Your task to perform on an android device: Show me the best rated vacuum on Walmart. Image 0: 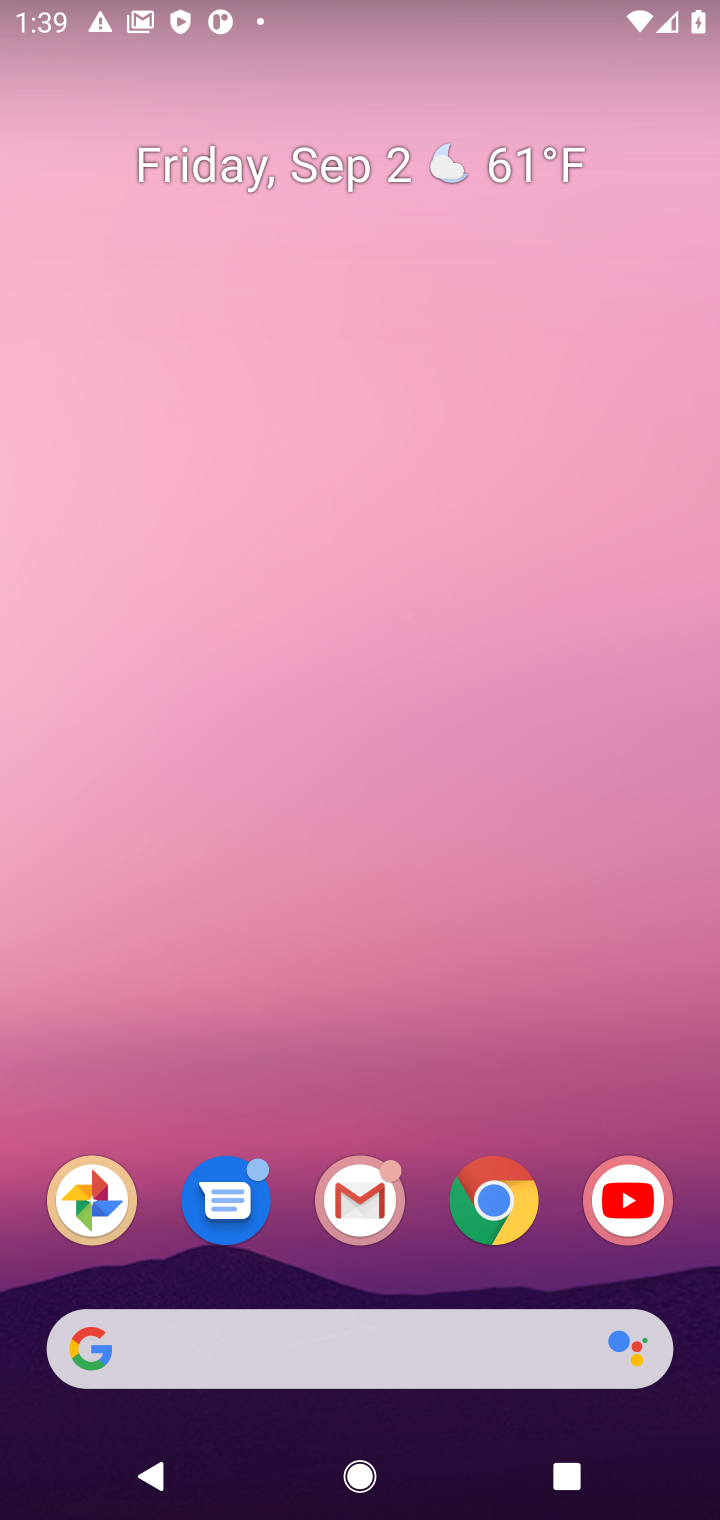
Step 0: click (496, 1203)
Your task to perform on an android device: Show me the best rated vacuum on Walmart. Image 1: 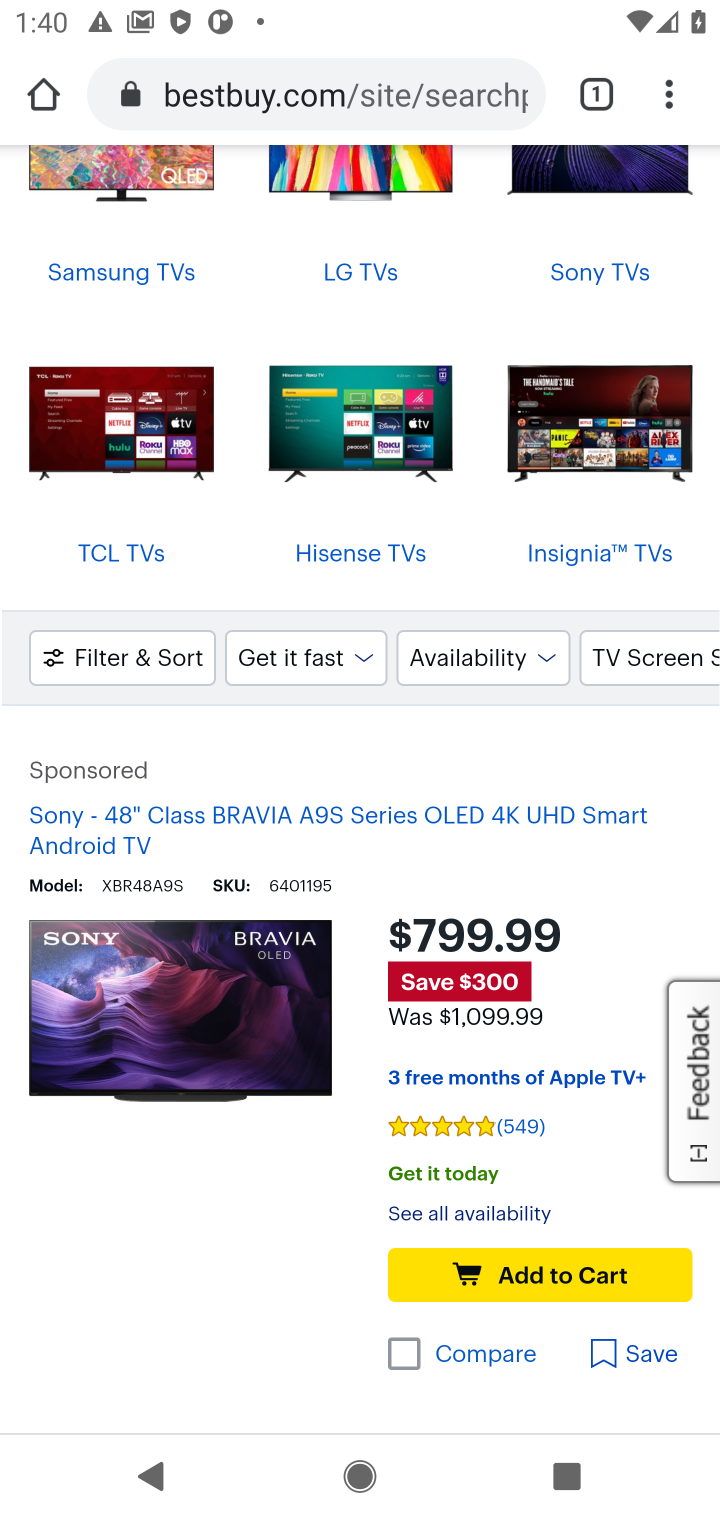
Step 1: click (437, 95)
Your task to perform on an android device: Show me the best rated vacuum on Walmart. Image 2: 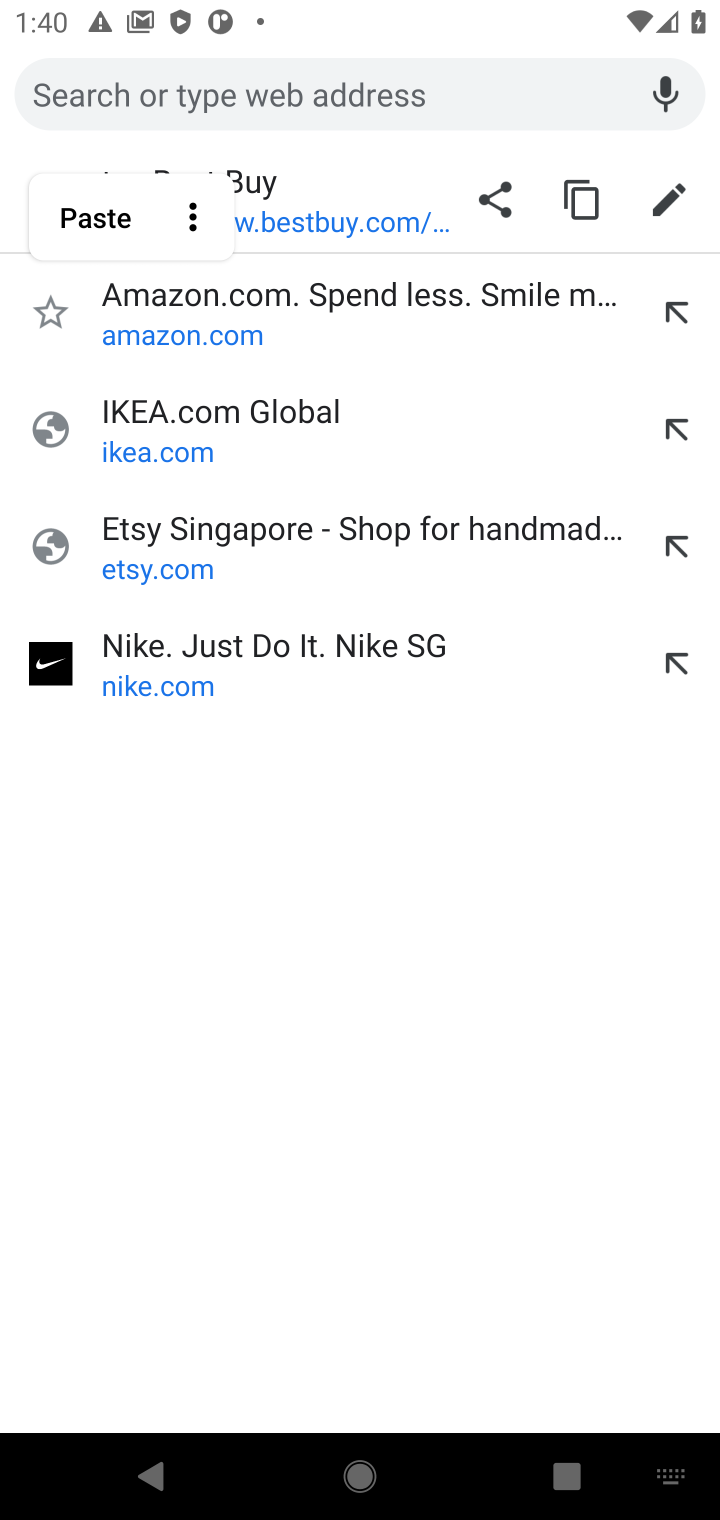
Step 2: type "Walmart"
Your task to perform on an android device: Show me the best rated vacuum on Walmart. Image 3: 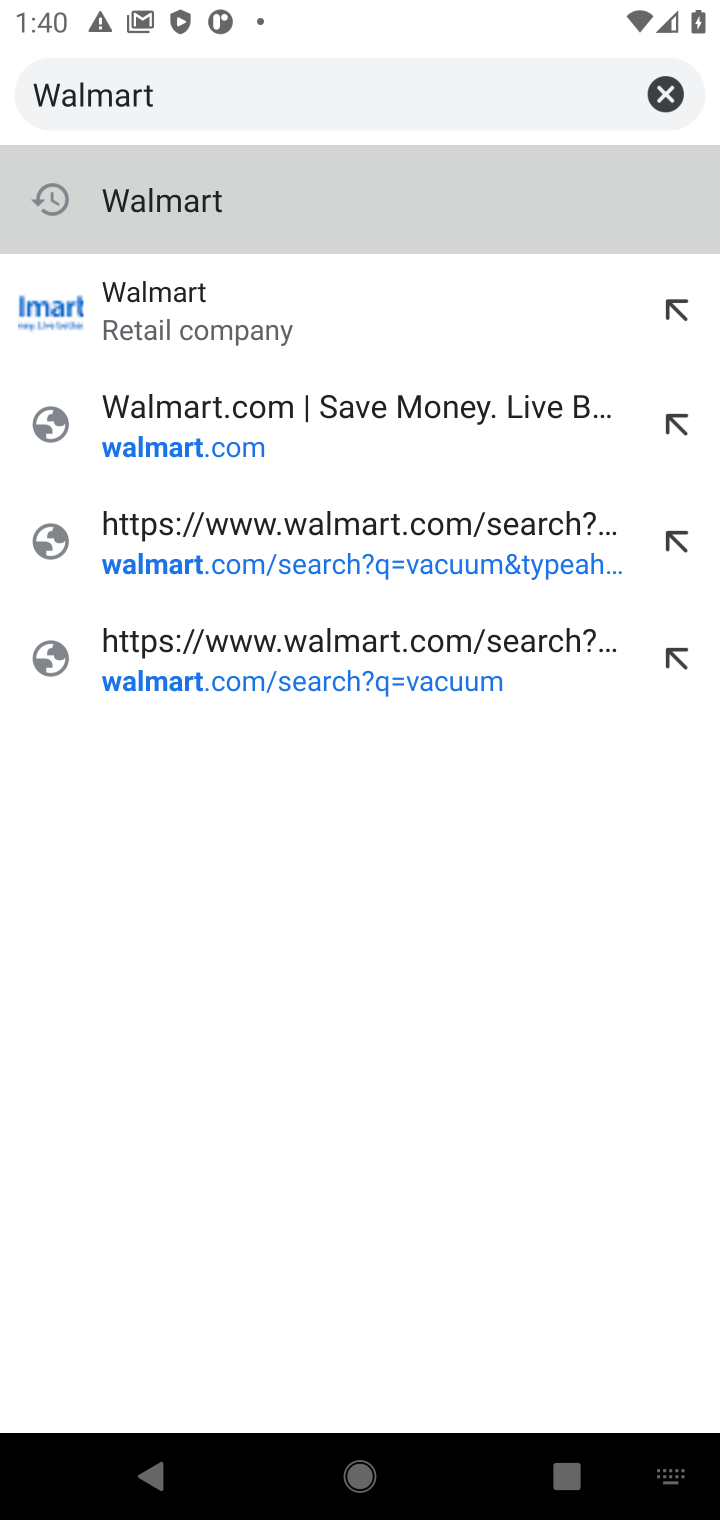
Step 3: press enter
Your task to perform on an android device: Show me the best rated vacuum on Walmart. Image 4: 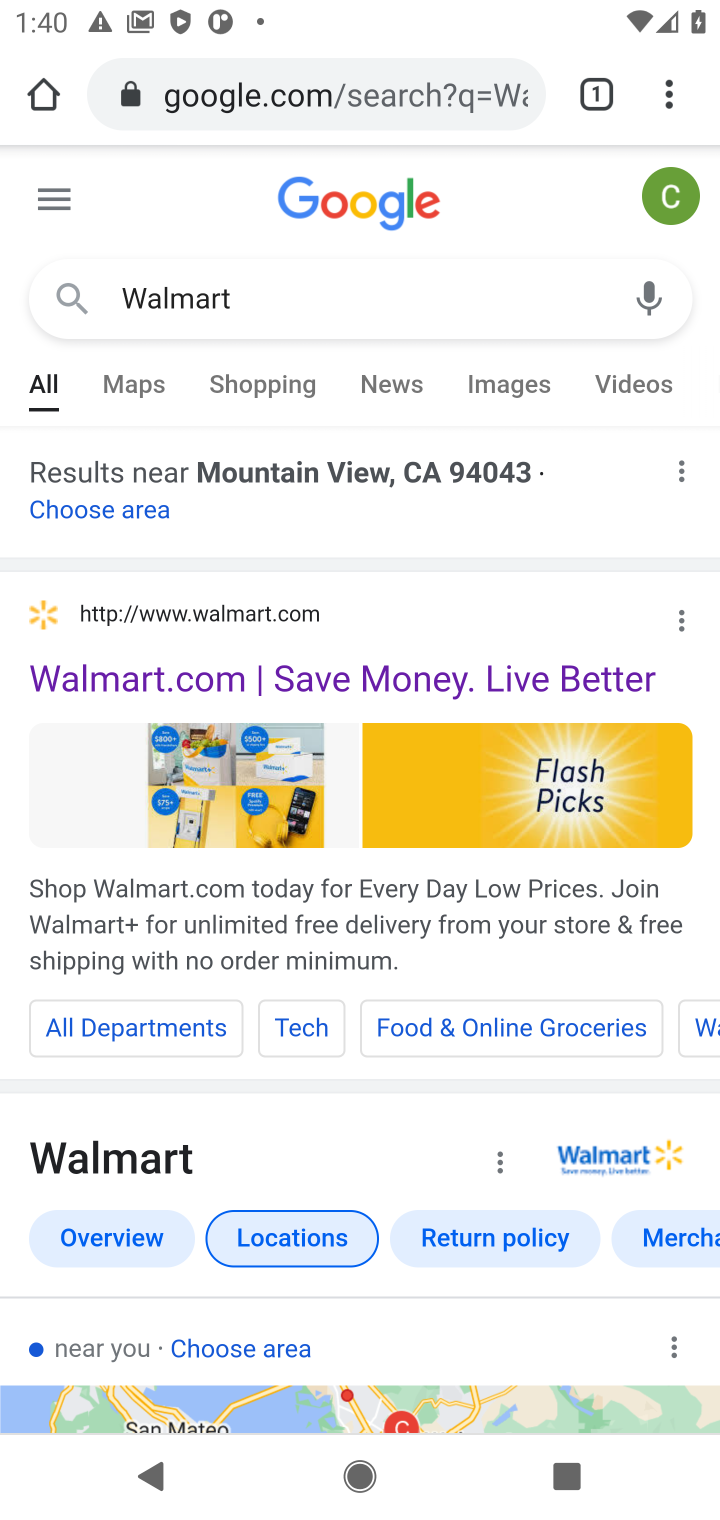
Step 4: drag from (230, 1403) to (519, 491)
Your task to perform on an android device: Show me the best rated vacuum on Walmart. Image 5: 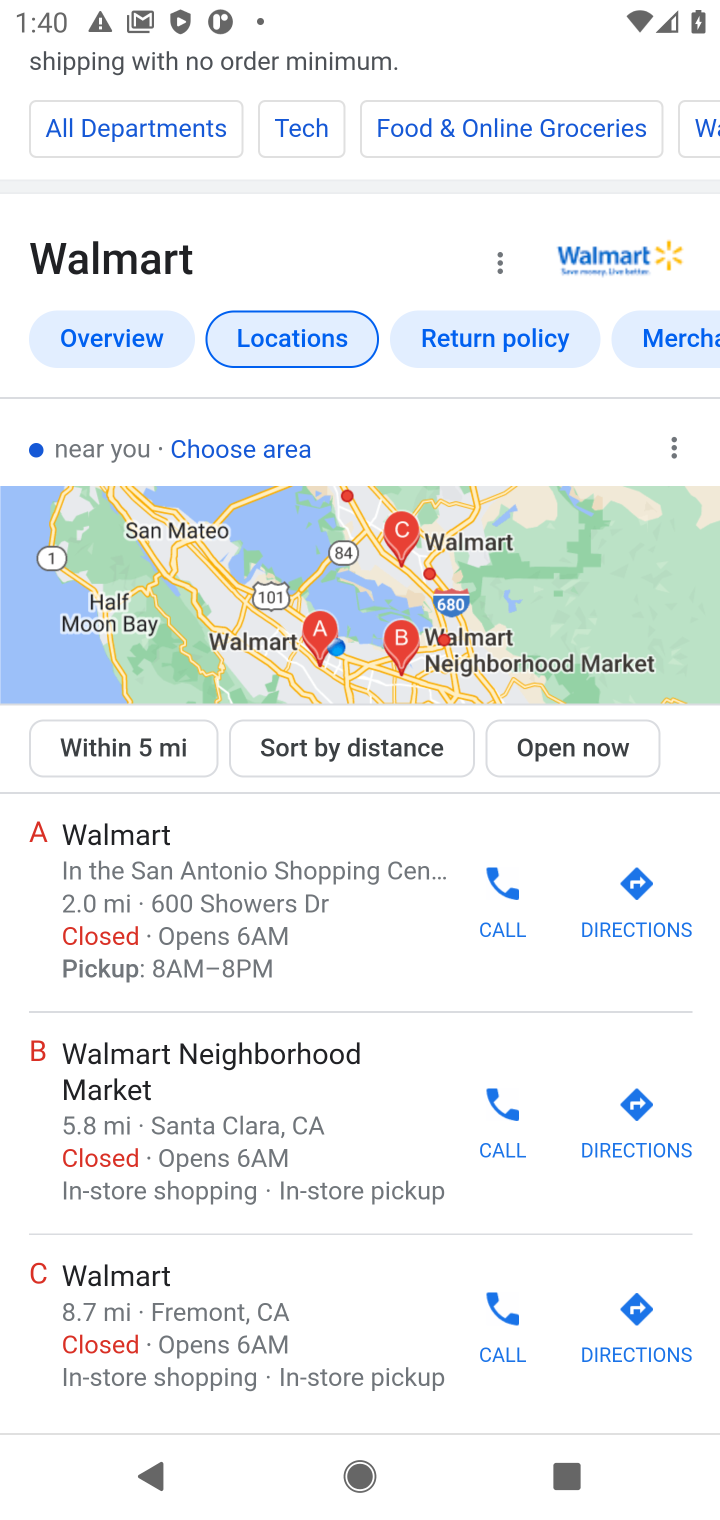
Step 5: drag from (187, 1215) to (607, 166)
Your task to perform on an android device: Show me the best rated vacuum on Walmart. Image 6: 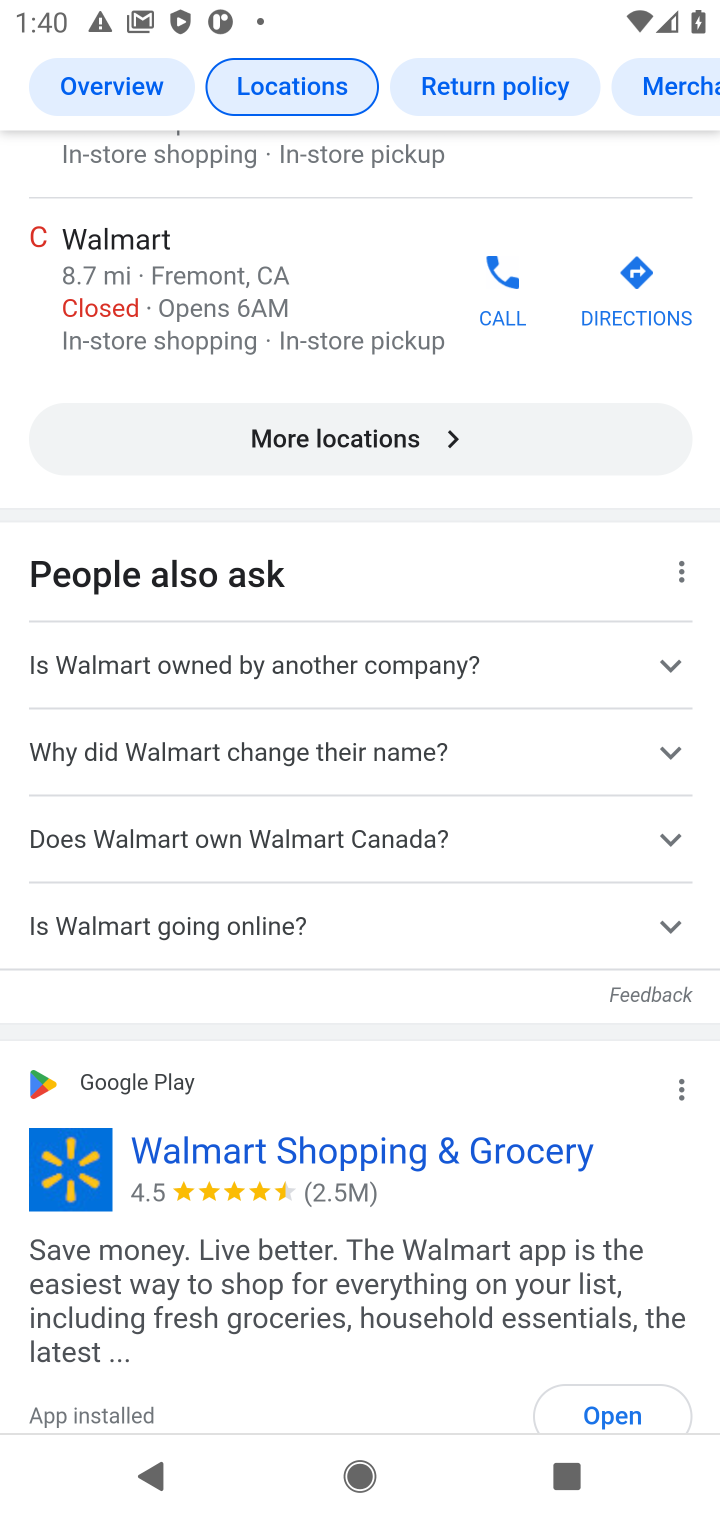
Step 6: drag from (299, 1238) to (589, 253)
Your task to perform on an android device: Show me the best rated vacuum on Walmart. Image 7: 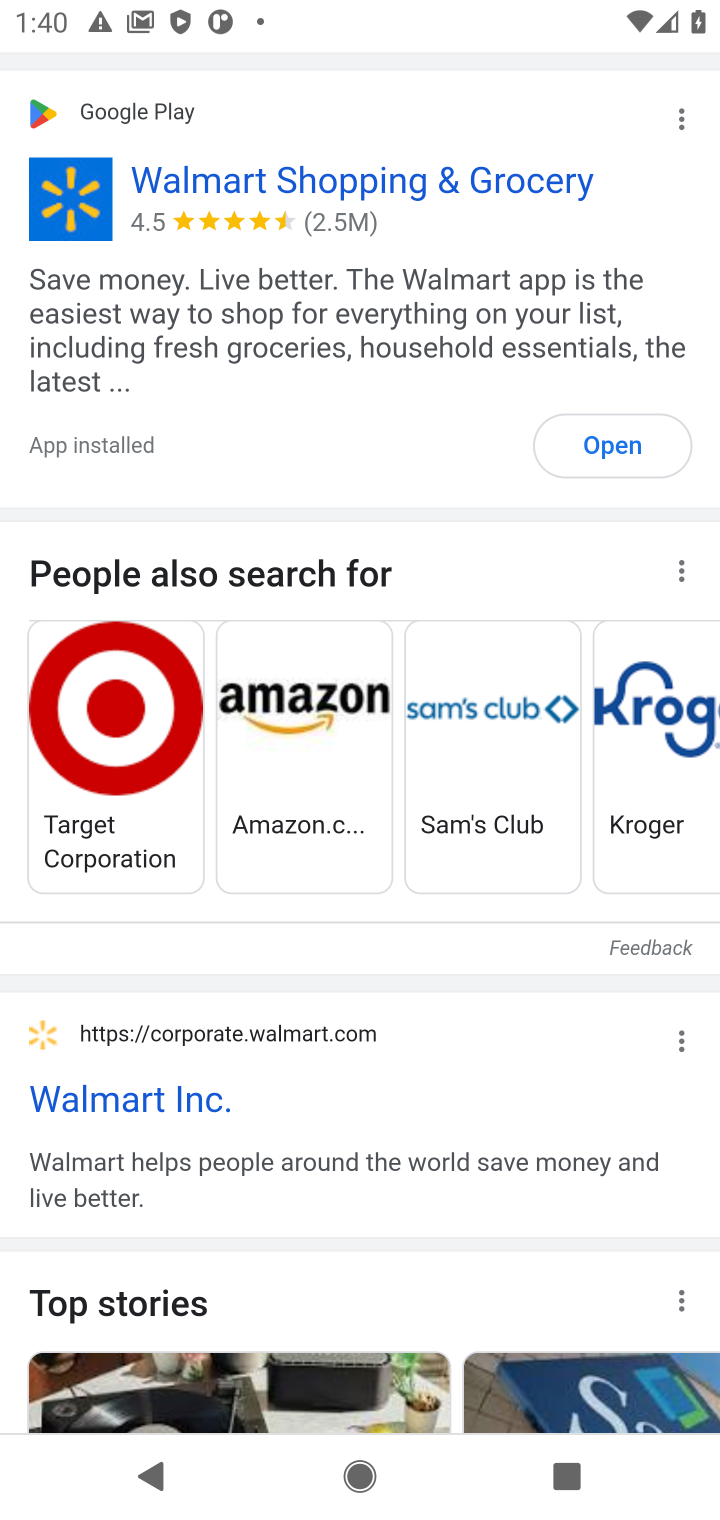
Step 7: drag from (489, 527) to (529, 221)
Your task to perform on an android device: Show me the best rated vacuum on Walmart. Image 8: 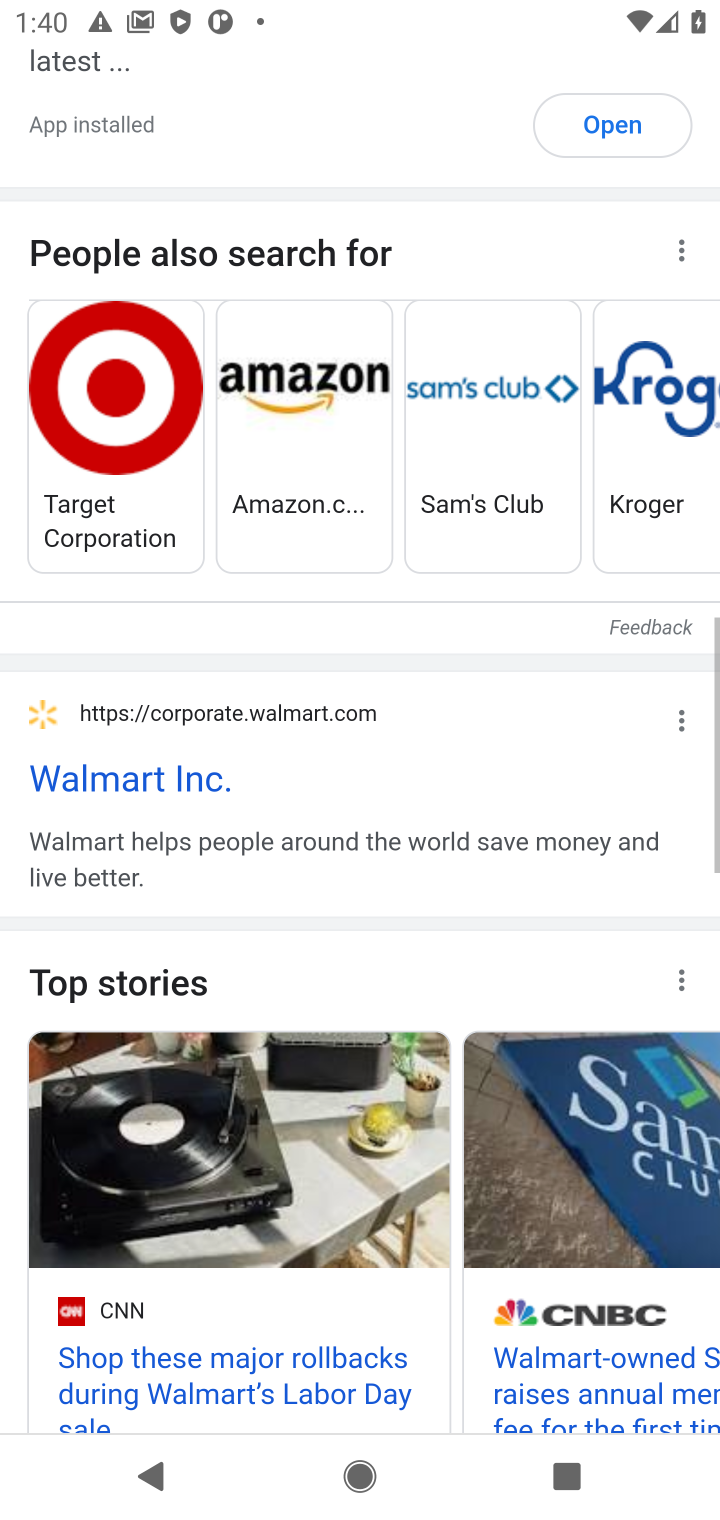
Step 8: drag from (324, 1062) to (500, 374)
Your task to perform on an android device: Show me the best rated vacuum on Walmart. Image 9: 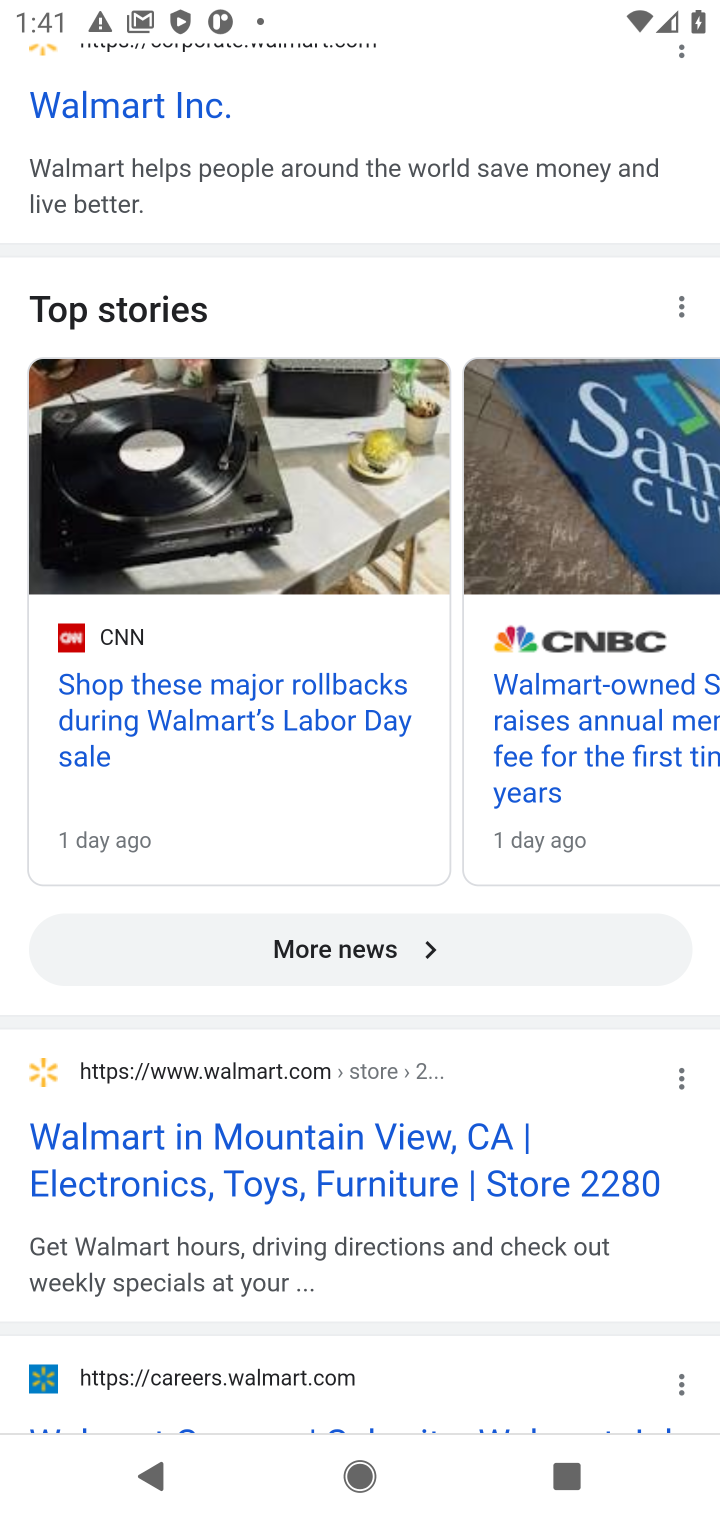
Step 9: click (266, 1146)
Your task to perform on an android device: Show me the best rated vacuum on Walmart. Image 10: 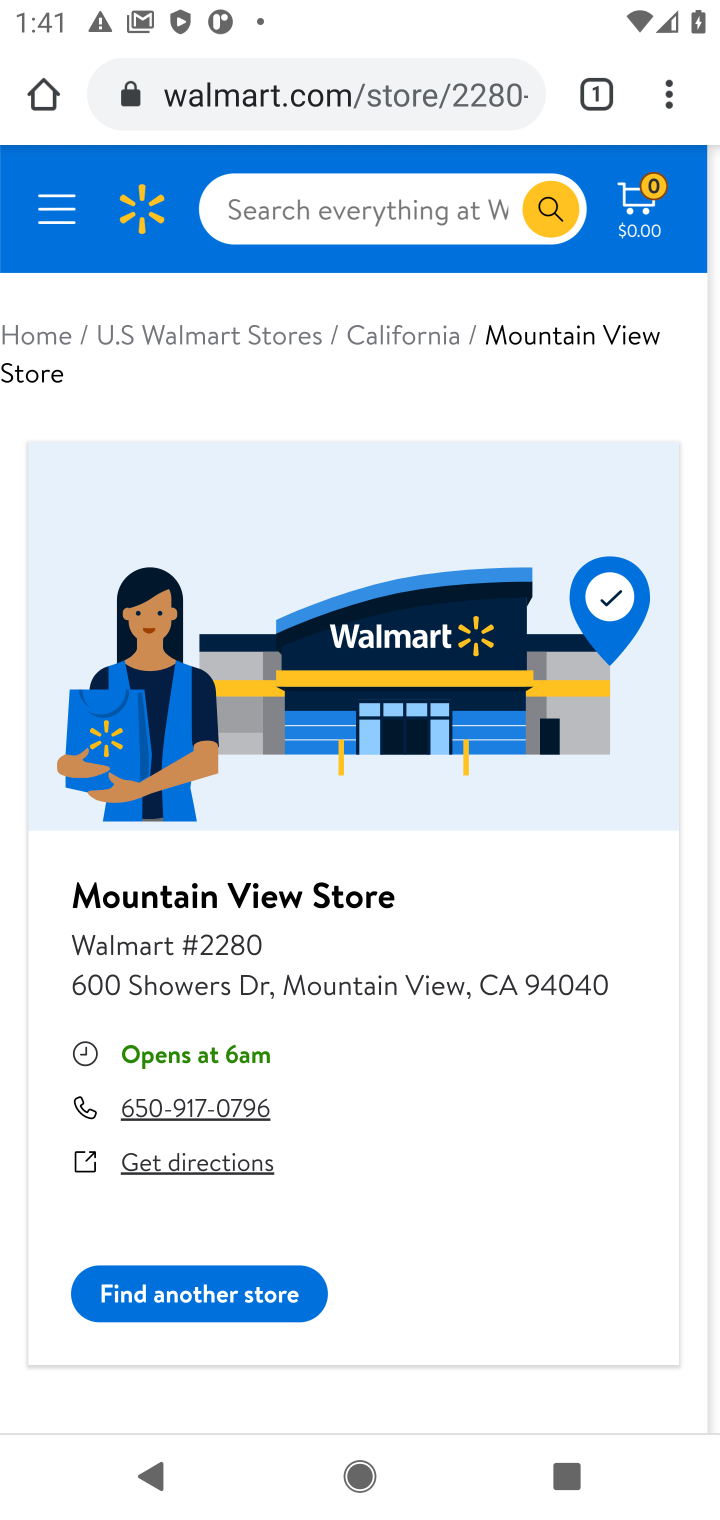
Step 10: click (382, 210)
Your task to perform on an android device: Show me the best rated vacuum on Walmart. Image 11: 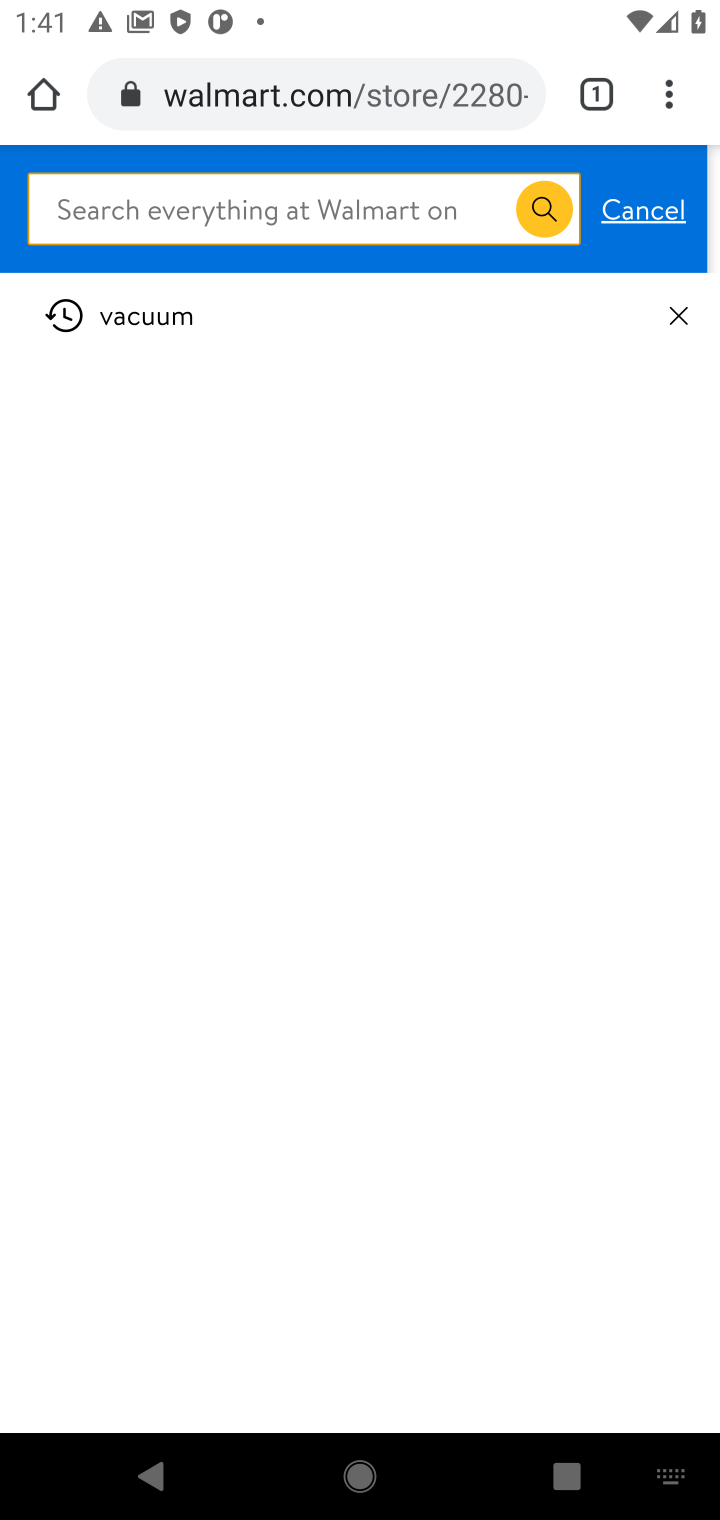
Step 11: type " vacuum"
Your task to perform on an android device: Show me the best rated vacuum on Walmart. Image 12: 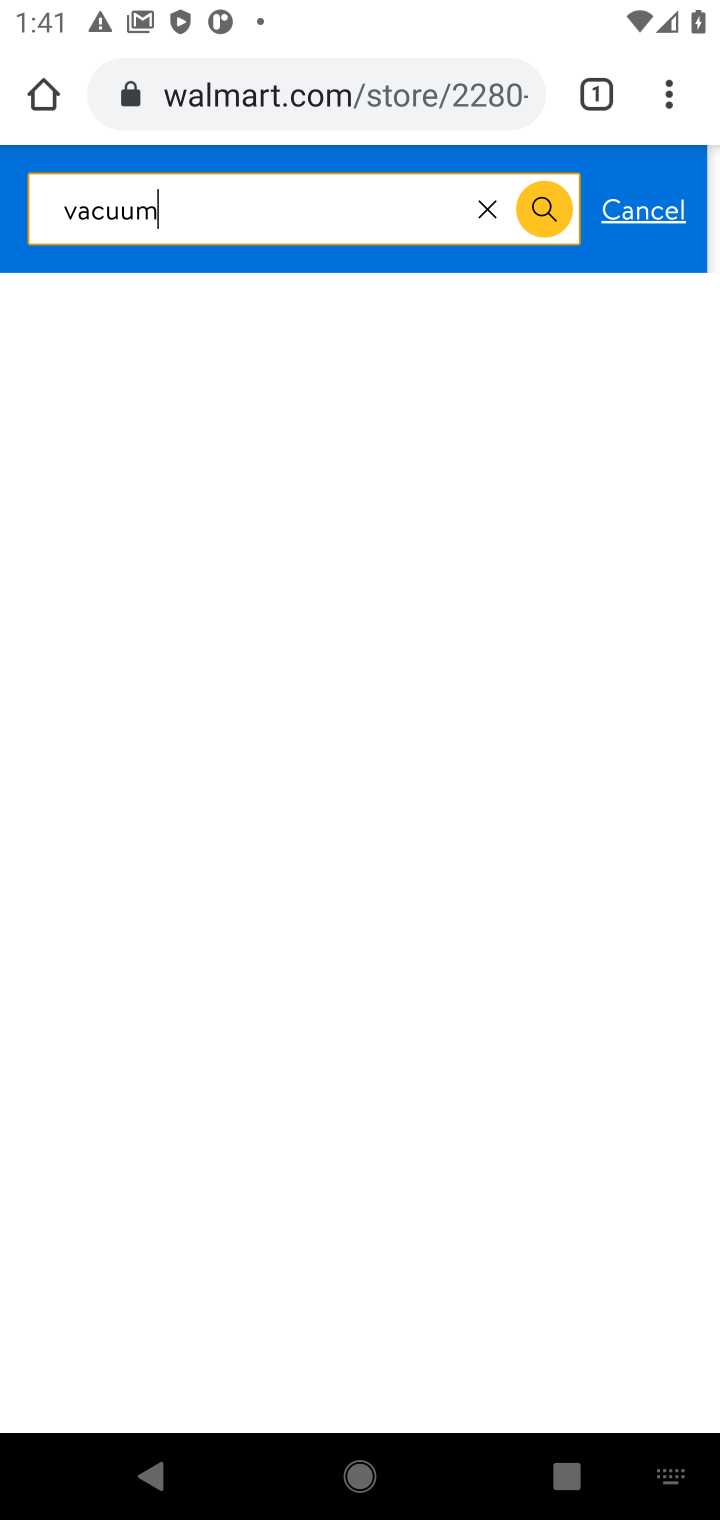
Step 12: press enter
Your task to perform on an android device: Show me the best rated vacuum on Walmart. Image 13: 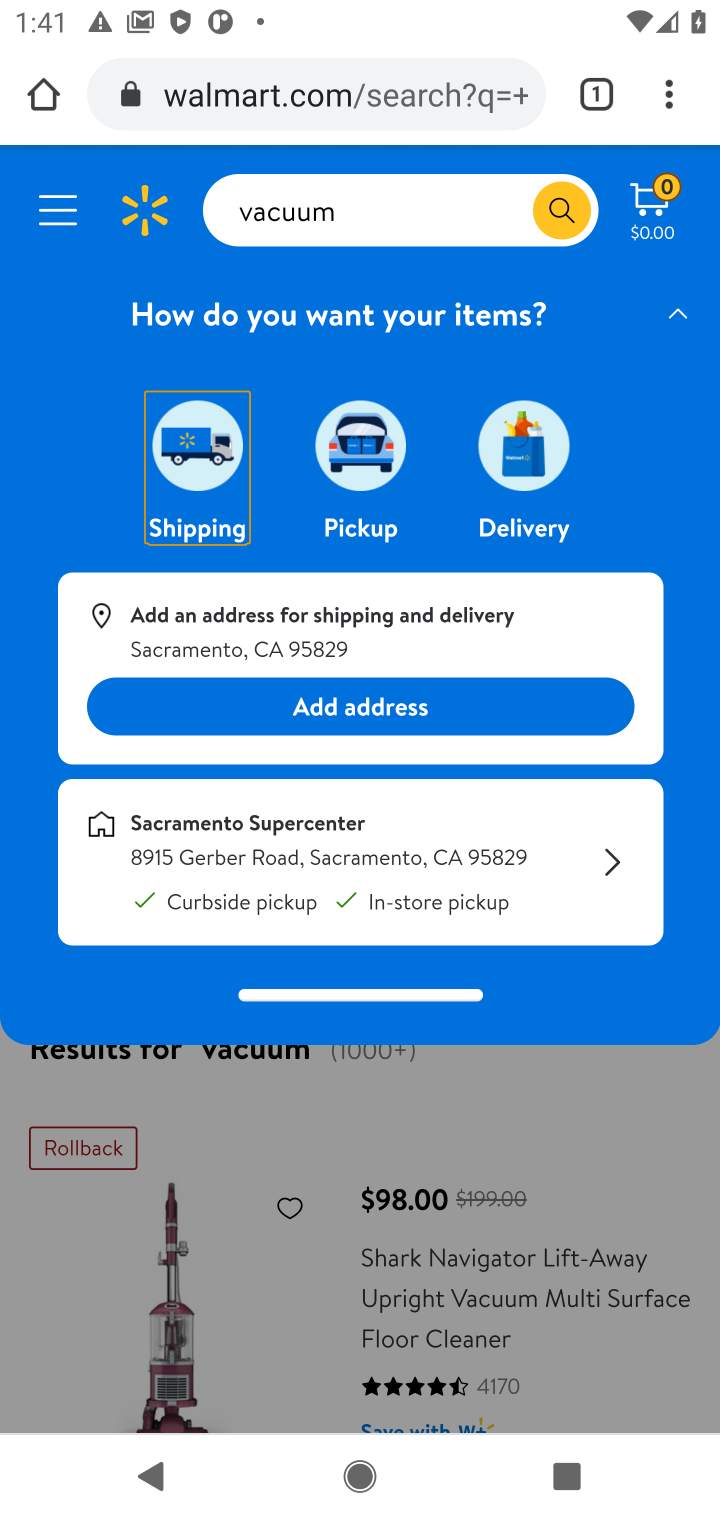
Step 13: drag from (381, 1281) to (601, 352)
Your task to perform on an android device: Show me the best rated vacuum on Walmart. Image 14: 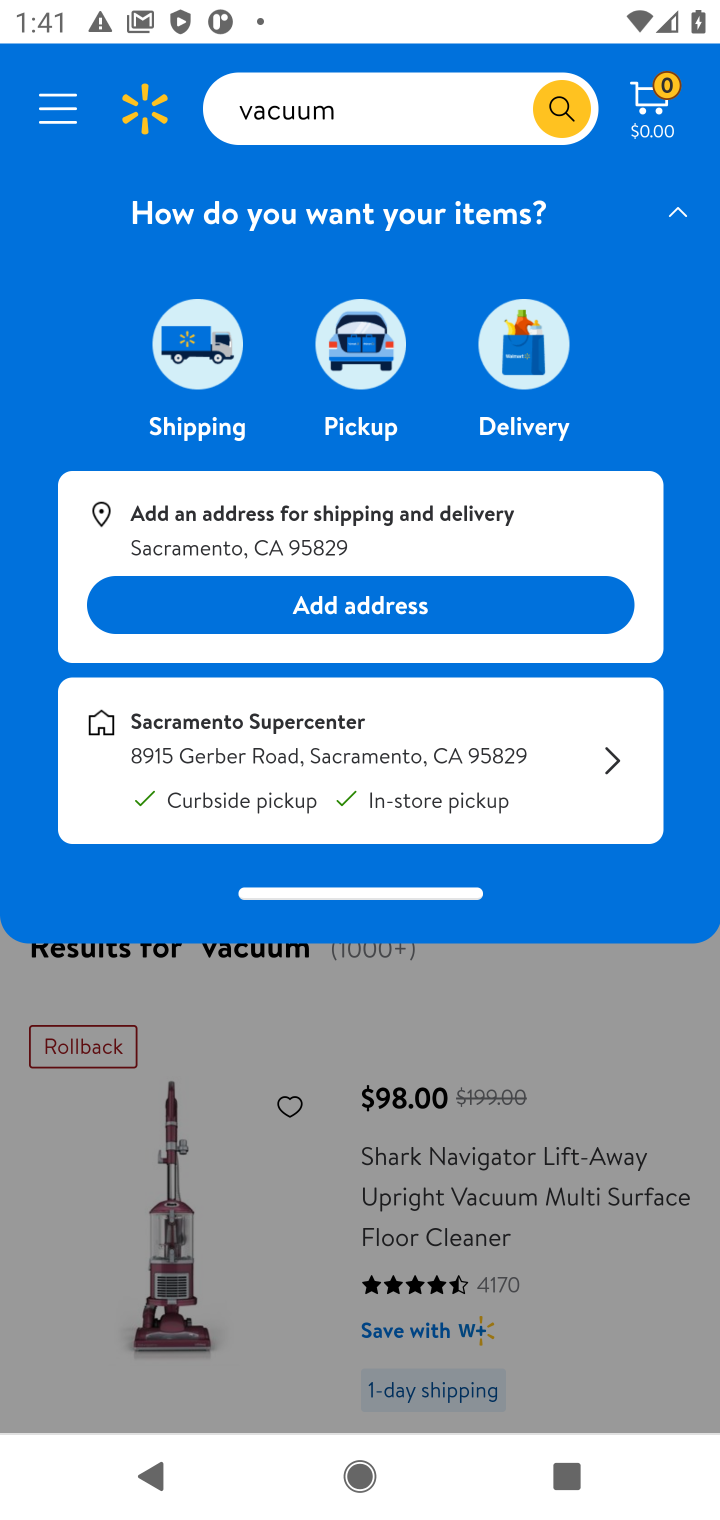
Step 14: drag from (499, 720) to (547, 479)
Your task to perform on an android device: Show me the best rated vacuum on Walmart. Image 15: 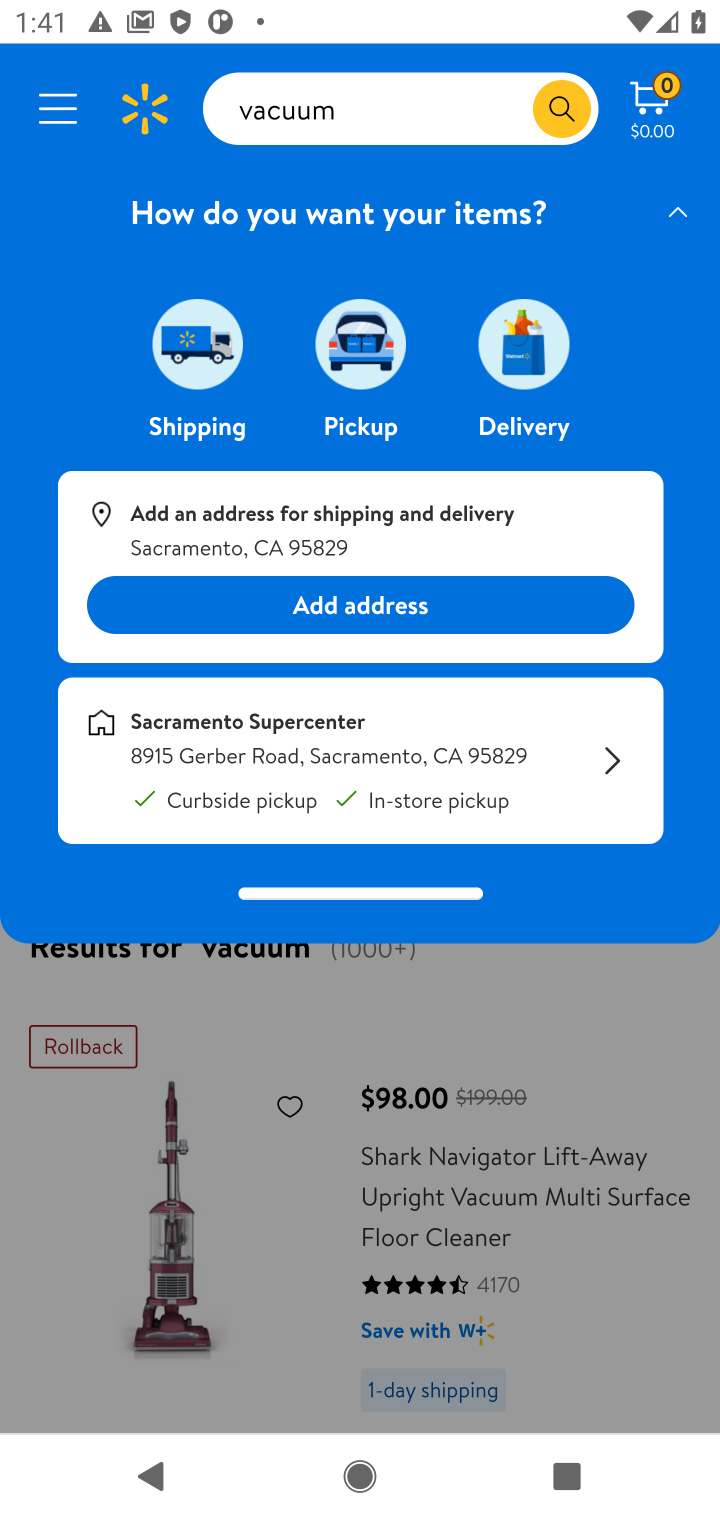
Step 15: drag from (189, 1163) to (479, 291)
Your task to perform on an android device: Show me the best rated vacuum on Walmart. Image 16: 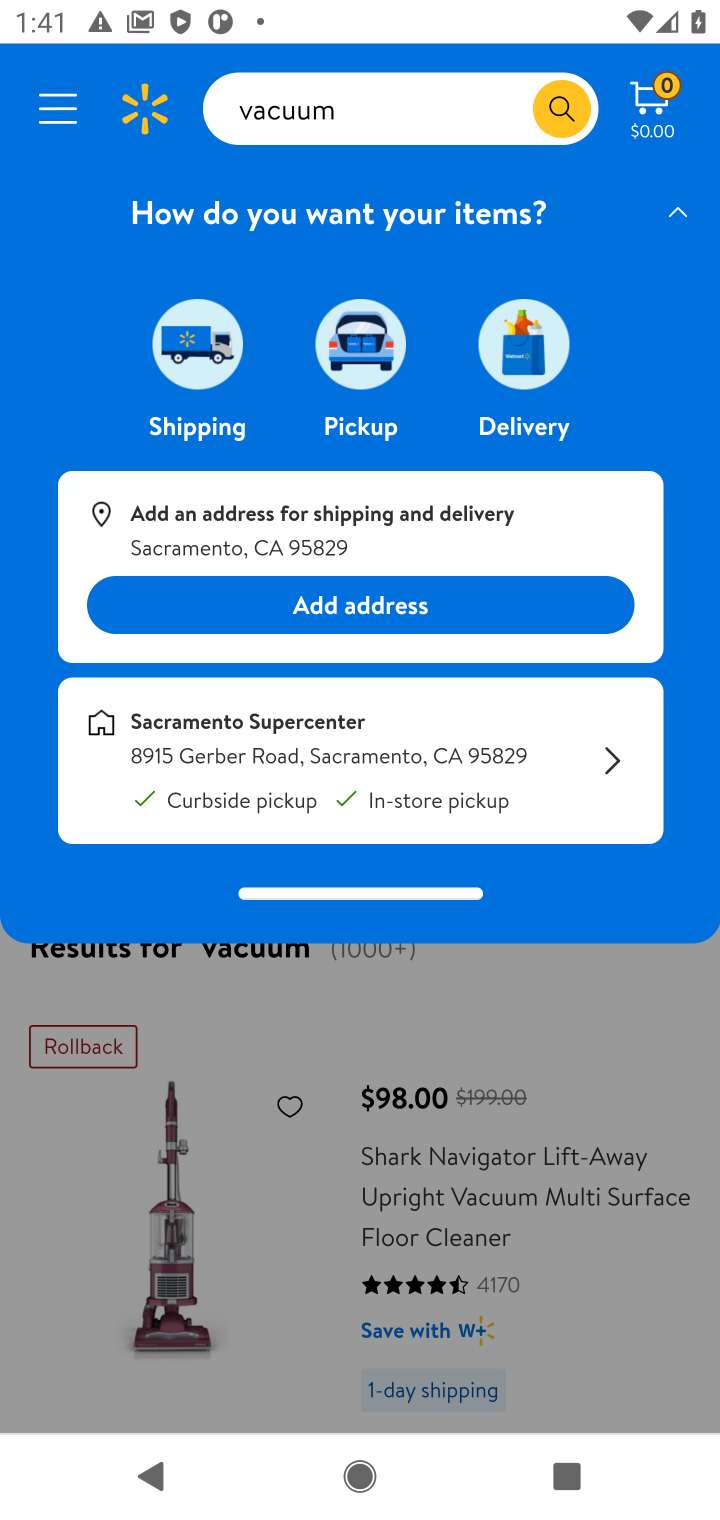
Step 16: drag from (147, 1235) to (322, 541)
Your task to perform on an android device: Show me the best rated vacuum on Walmart. Image 17: 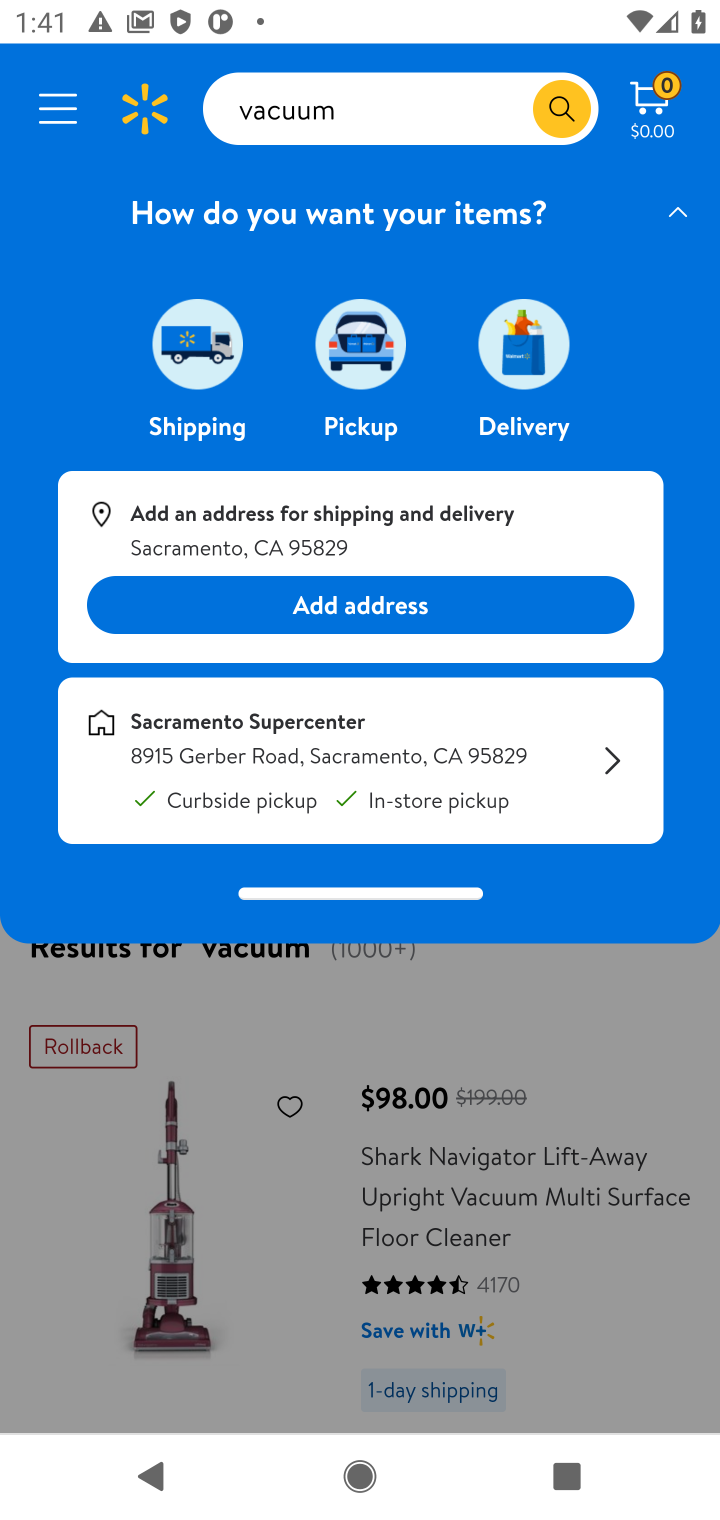
Step 17: click (63, 103)
Your task to perform on an android device: Show me the best rated vacuum on Walmart. Image 18: 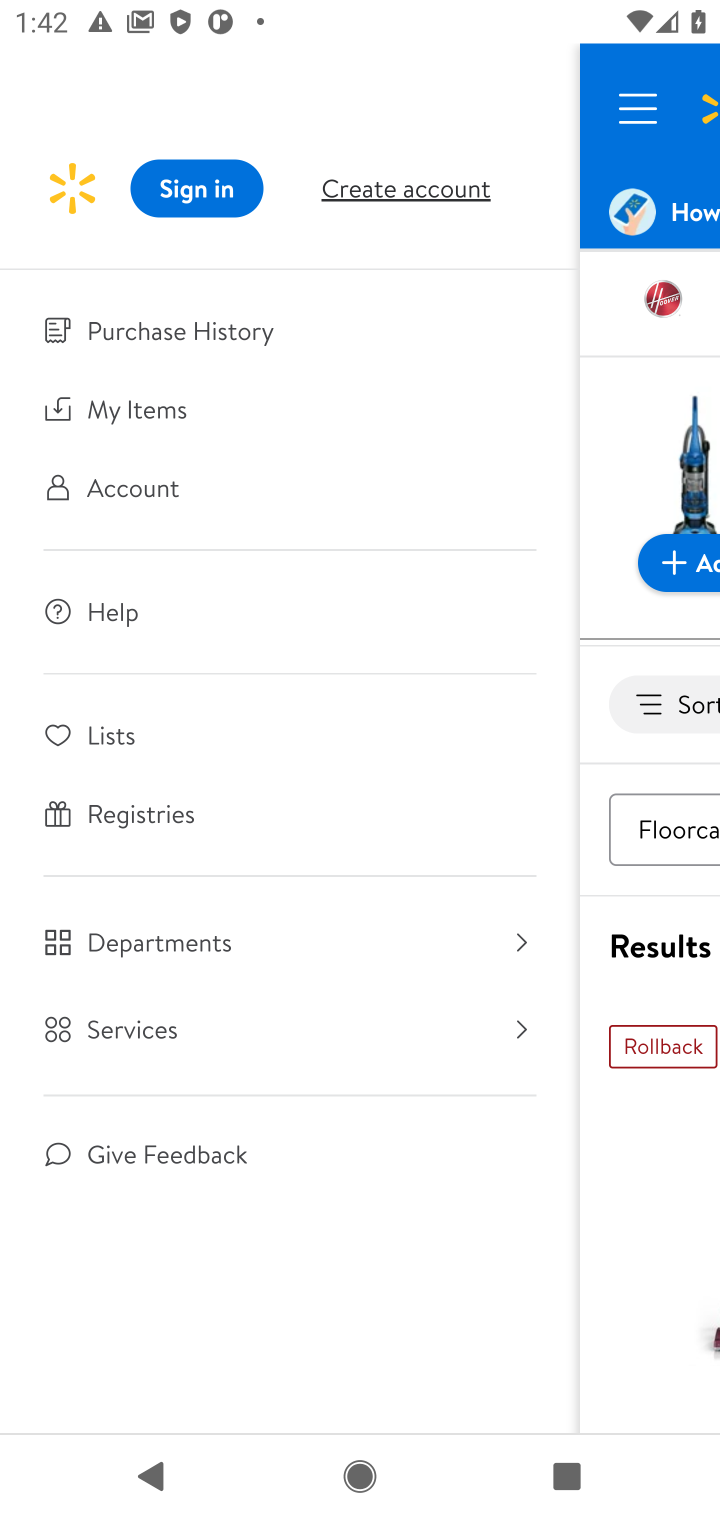
Step 18: click (609, 1185)
Your task to perform on an android device: Show me the best rated vacuum on Walmart. Image 19: 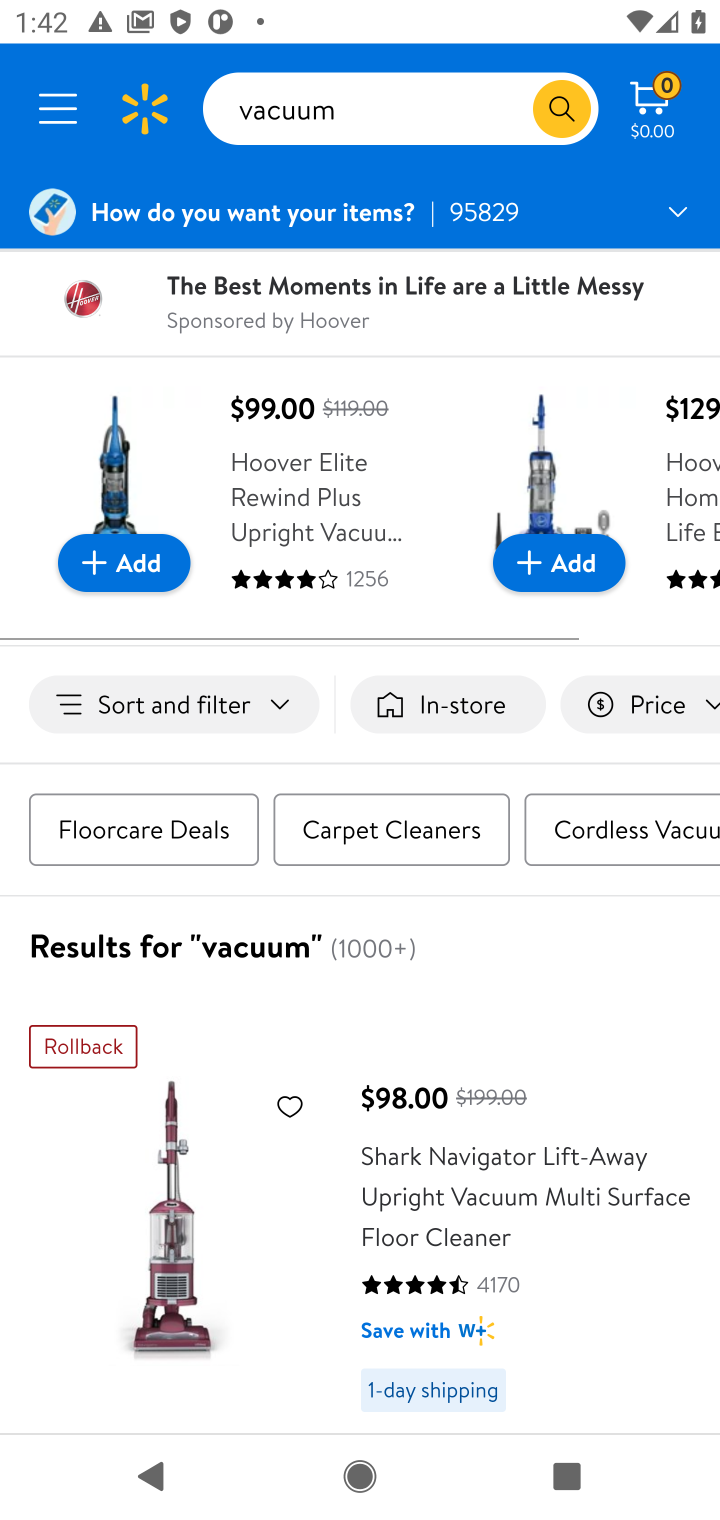
Step 19: task complete